Your task to perform on an android device: Turn off the flashlight Image 0: 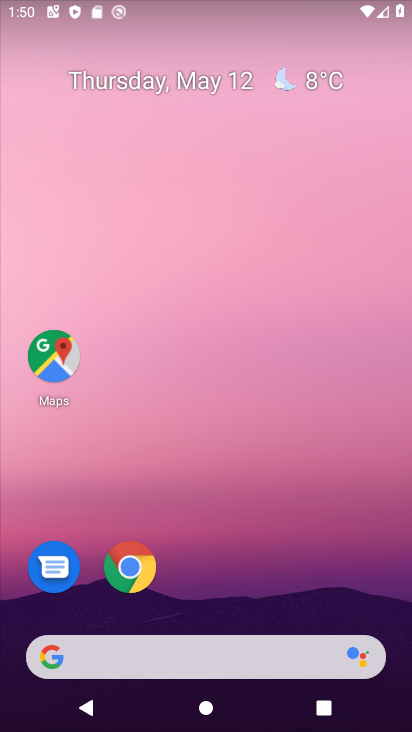
Step 0: drag from (212, 607) to (232, 121)
Your task to perform on an android device: Turn off the flashlight Image 1: 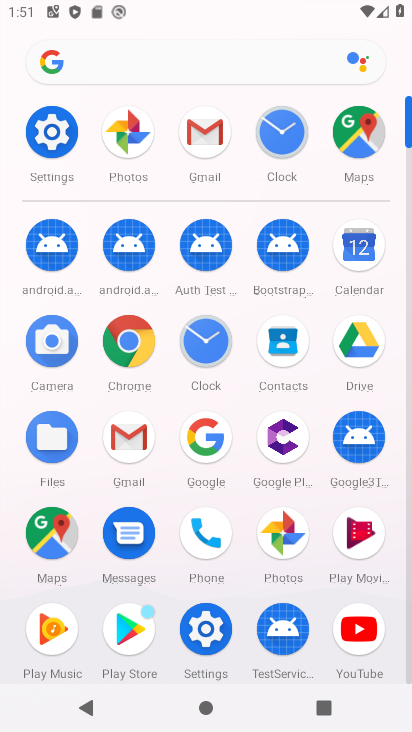
Step 1: click (50, 127)
Your task to perform on an android device: Turn off the flashlight Image 2: 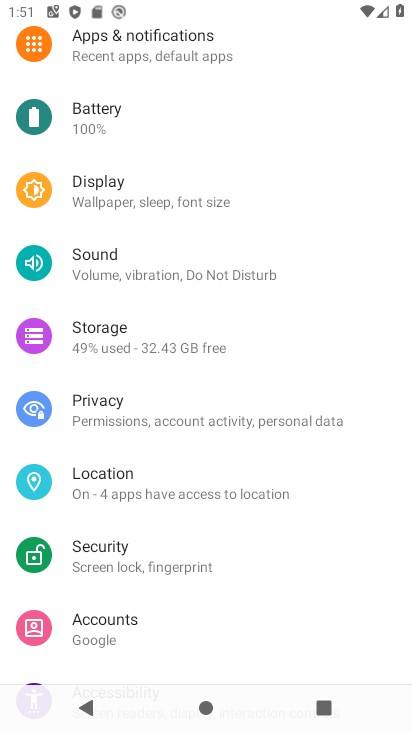
Step 2: drag from (164, 606) to (171, 491)
Your task to perform on an android device: Turn off the flashlight Image 3: 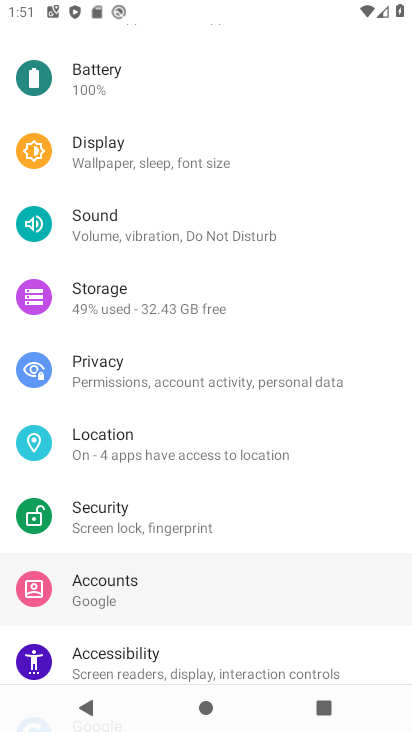
Step 3: click (200, 209)
Your task to perform on an android device: Turn off the flashlight Image 4: 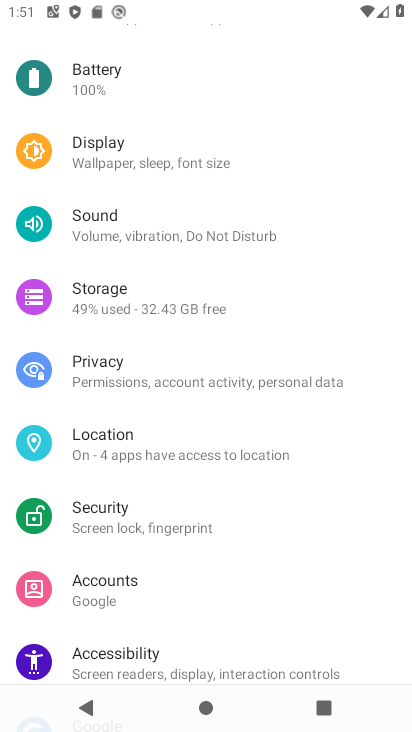
Step 4: drag from (169, 100) to (169, 515)
Your task to perform on an android device: Turn off the flashlight Image 5: 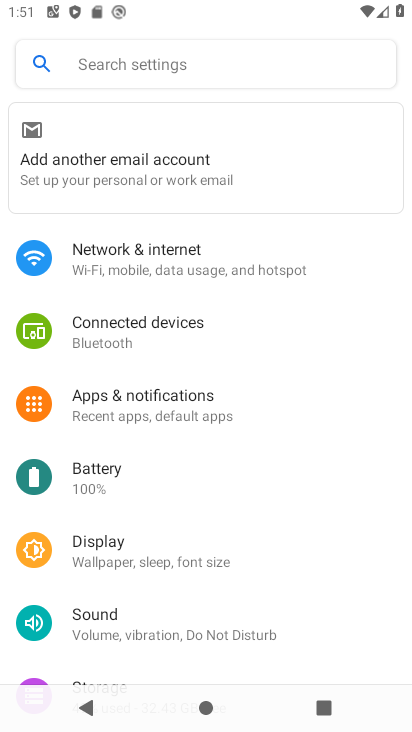
Step 5: click (114, 64)
Your task to perform on an android device: Turn off the flashlight Image 6: 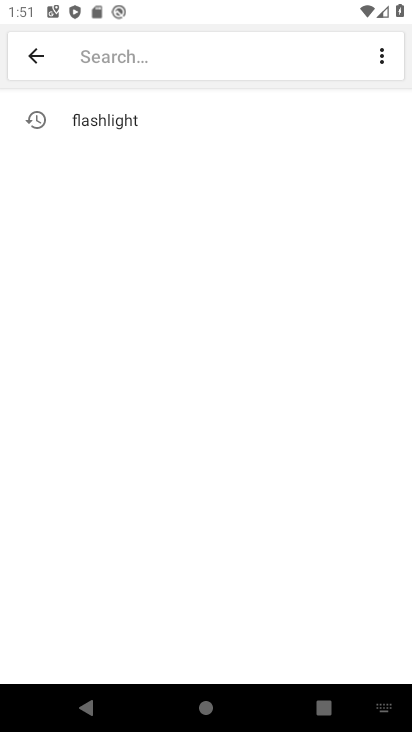
Step 6: click (142, 111)
Your task to perform on an android device: Turn off the flashlight Image 7: 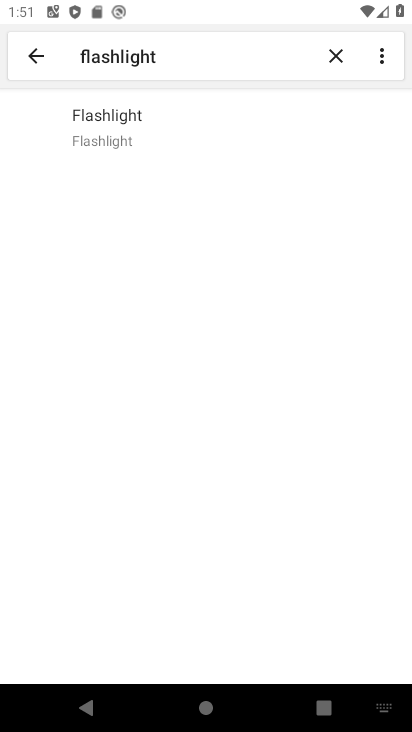
Step 7: click (135, 127)
Your task to perform on an android device: Turn off the flashlight Image 8: 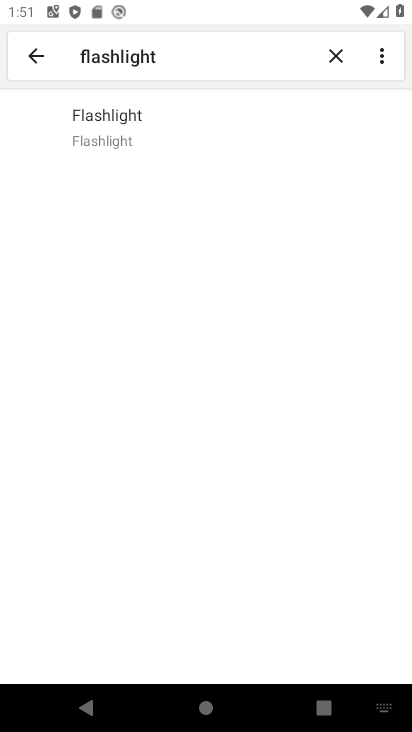
Step 8: task complete